Your task to perform on an android device: open app "Adobe Acrobat Reader" Image 0: 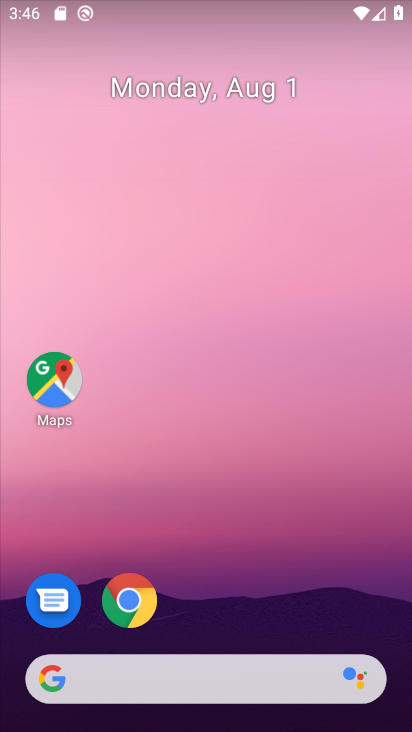
Step 0: drag from (213, 142) to (212, 104)
Your task to perform on an android device: open app "Adobe Acrobat Reader" Image 1: 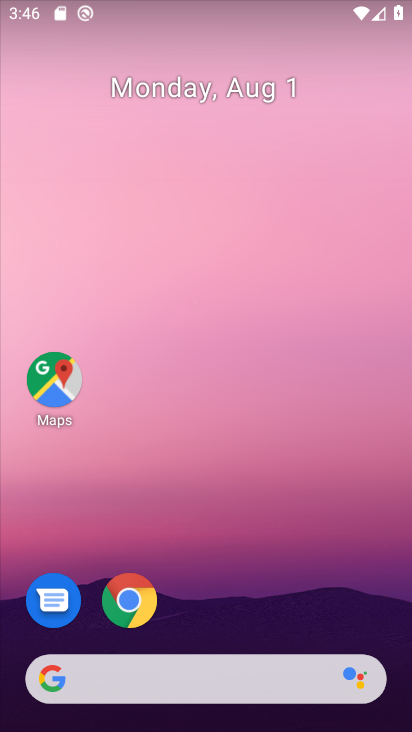
Step 1: drag from (261, 594) to (257, 98)
Your task to perform on an android device: open app "Adobe Acrobat Reader" Image 2: 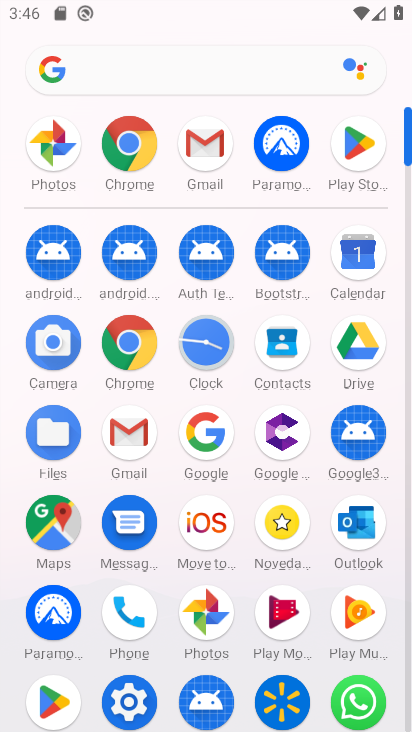
Step 2: click (357, 144)
Your task to perform on an android device: open app "Adobe Acrobat Reader" Image 3: 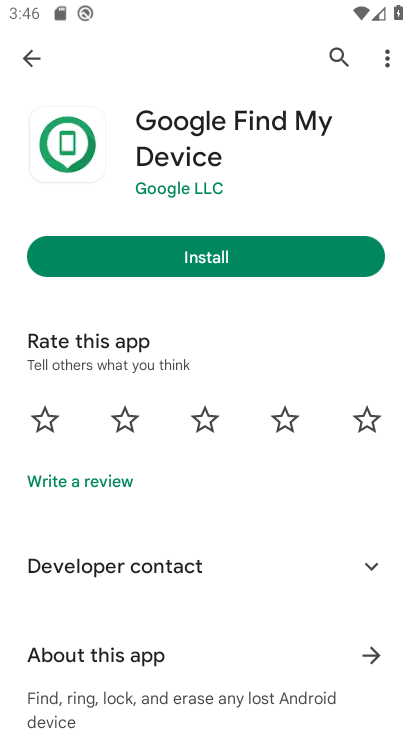
Step 3: click (337, 57)
Your task to perform on an android device: open app "Adobe Acrobat Reader" Image 4: 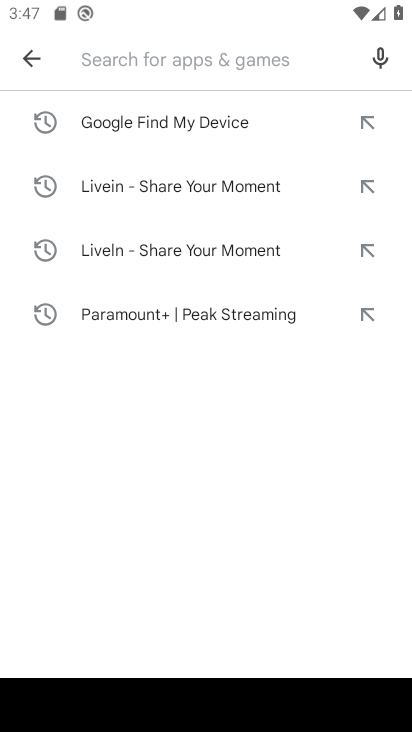
Step 4: type "Adobe Acrobat Reader"
Your task to perform on an android device: open app "Adobe Acrobat Reader" Image 5: 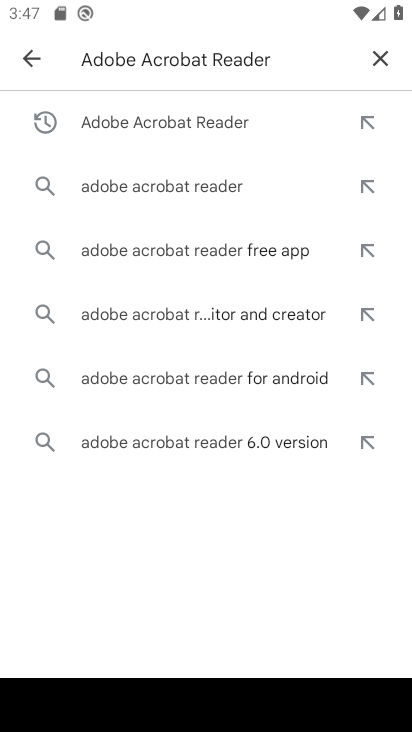
Step 5: press enter
Your task to perform on an android device: open app "Adobe Acrobat Reader" Image 6: 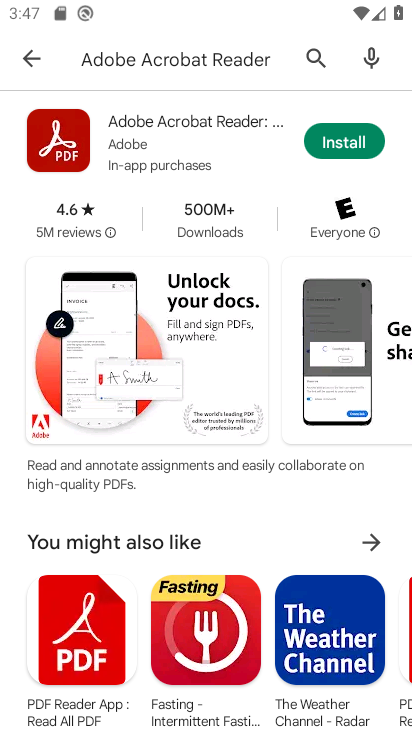
Step 6: click (152, 154)
Your task to perform on an android device: open app "Adobe Acrobat Reader" Image 7: 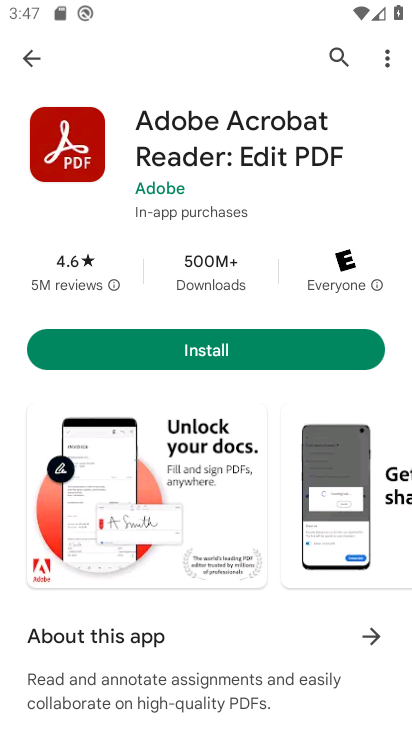
Step 7: task complete